Your task to perform on an android device: change the upload size in google photos Image 0: 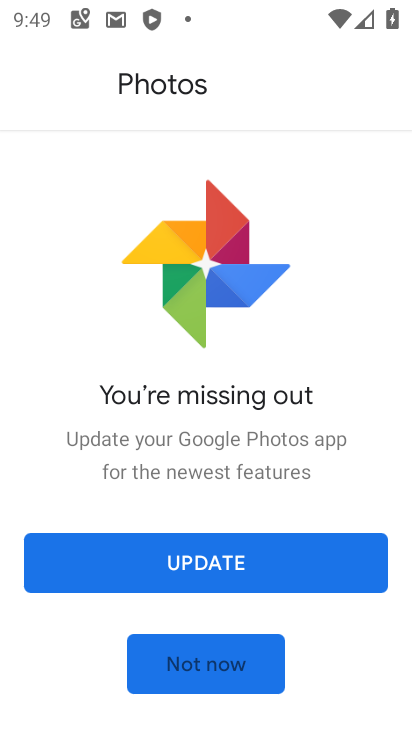
Step 0: click (264, 556)
Your task to perform on an android device: change the upload size in google photos Image 1: 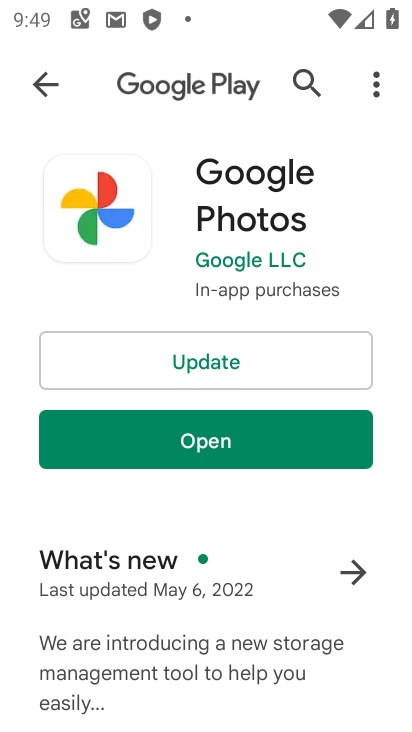
Step 1: click (270, 353)
Your task to perform on an android device: change the upload size in google photos Image 2: 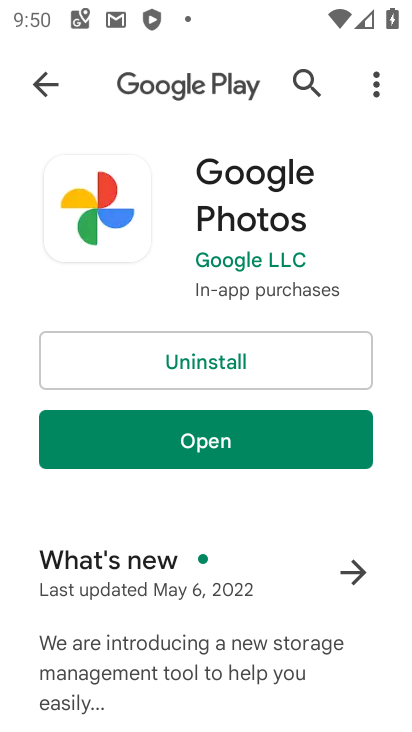
Step 2: click (261, 440)
Your task to perform on an android device: change the upload size in google photos Image 3: 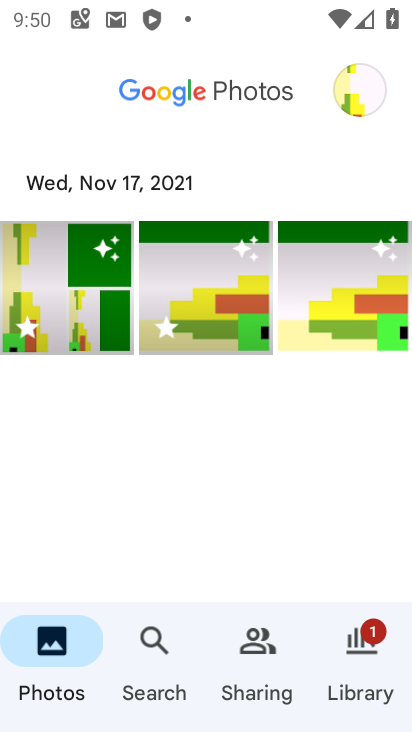
Step 3: click (353, 94)
Your task to perform on an android device: change the upload size in google photos Image 4: 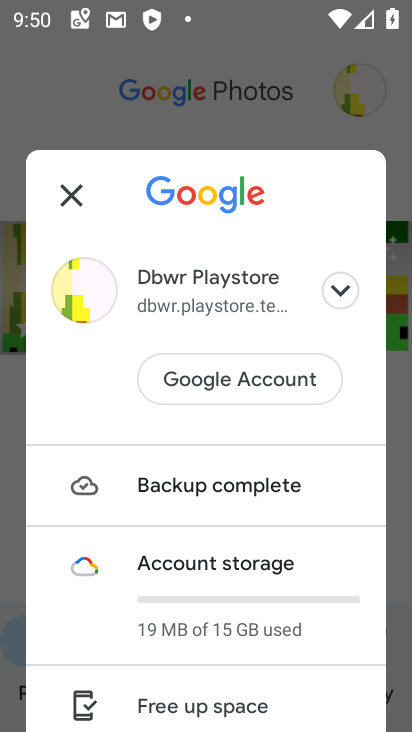
Step 4: click (244, 670)
Your task to perform on an android device: change the upload size in google photos Image 5: 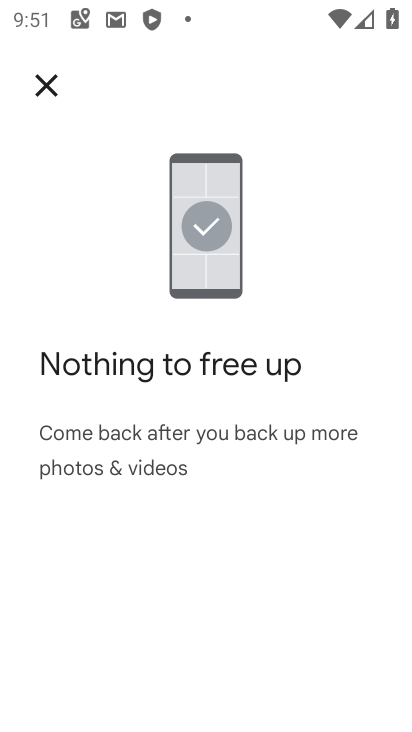
Step 5: click (71, 135)
Your task to perform on an android device: change the upload size in google photos Image 6: 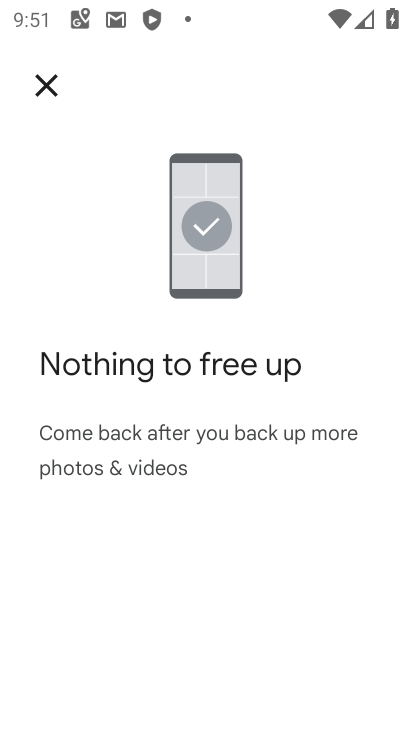
Step 6: click (53, 102)
Your task to perform on an android device: change the upload size in google photos Image 7: 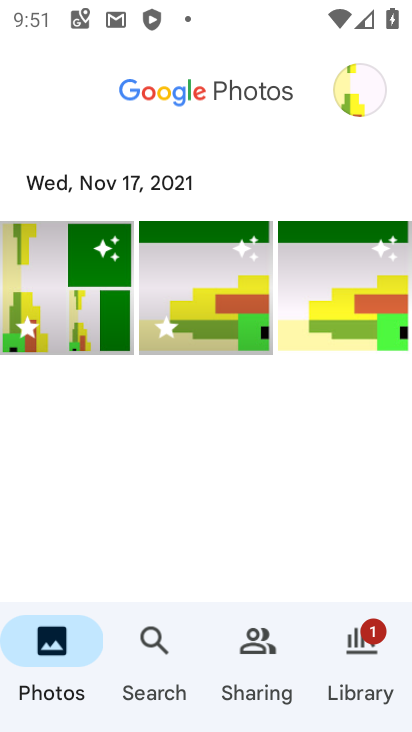
Step 7: click (381, 107)
Your task to perform on an android device: change the upload size in google photos Image 8: 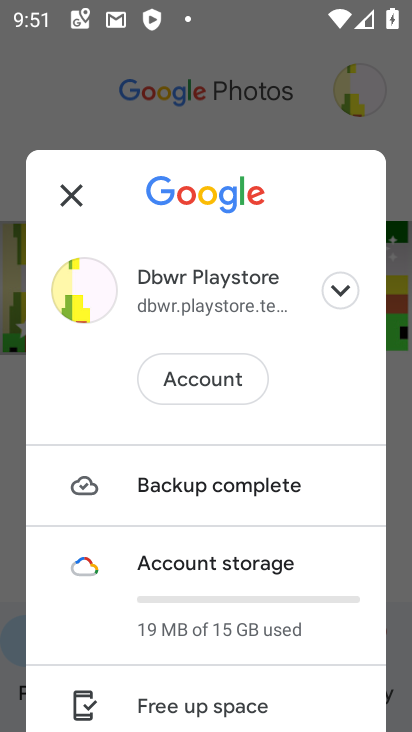
Step 8: drag from (228, 632) to (228, 513)
Your task to perform on an android device: change the upload size in google photos Image 9: 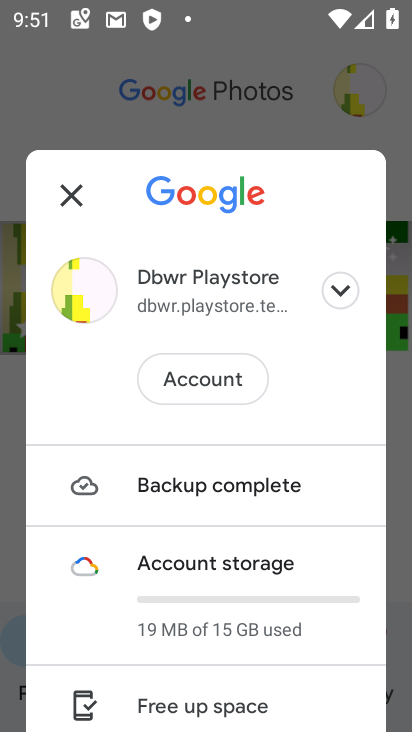
Step 9: drag from (226, 676) to (226, 548)
Your task to perform on an android device: change the upload size in google photos Image 10: 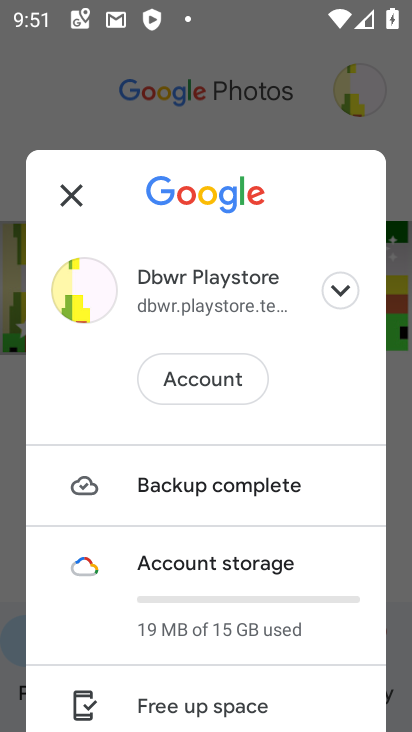
Step 10: drag from (227, 636) to (308, 275)
Your task to perform on an android device: change the upload size in google photos Image 11: 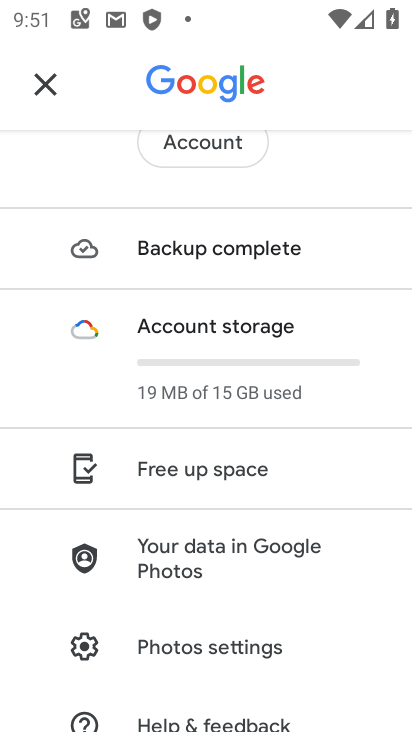
Step 11: click (259, 628)
Your task to perform on an android device: change the upload size in google photos Image 12: 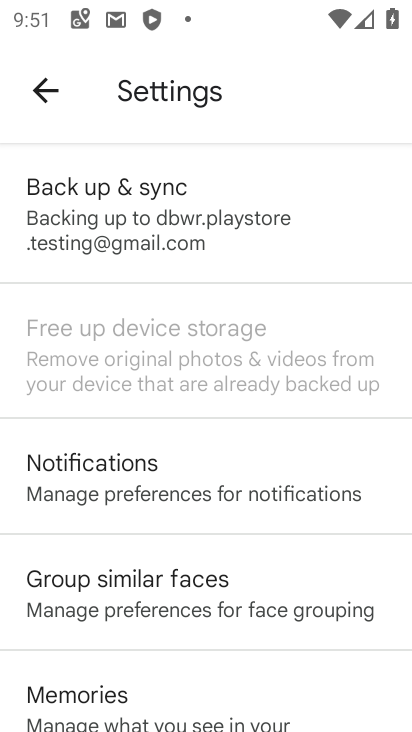
Step 12: click (222, 235)
Your task to perform on an android device: change the upload size in google photos Image 13: 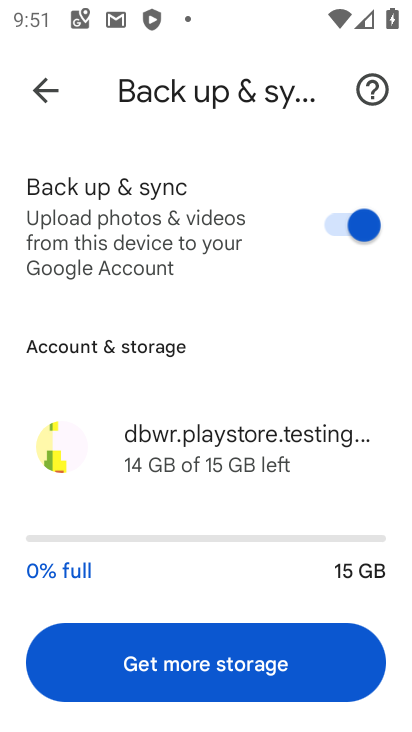
Step 13: click (212, 454)
Your task to perform on an android device: change the upload size in google photos Image 14: 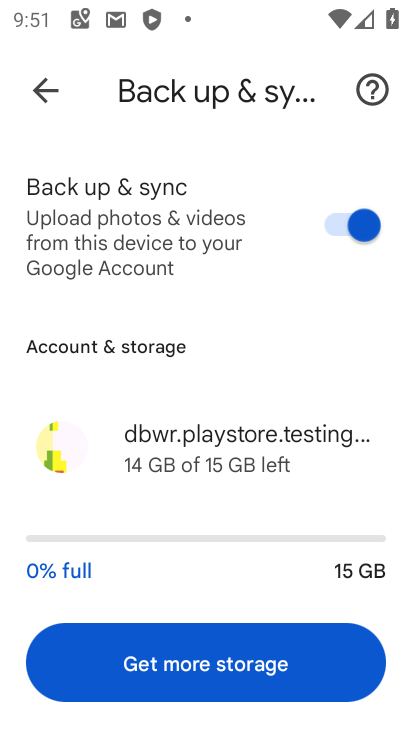
Step 14: drag from (214, 480) to (175, 74)
Your task to perform on an android device: change the upload size in google photos Image 15: 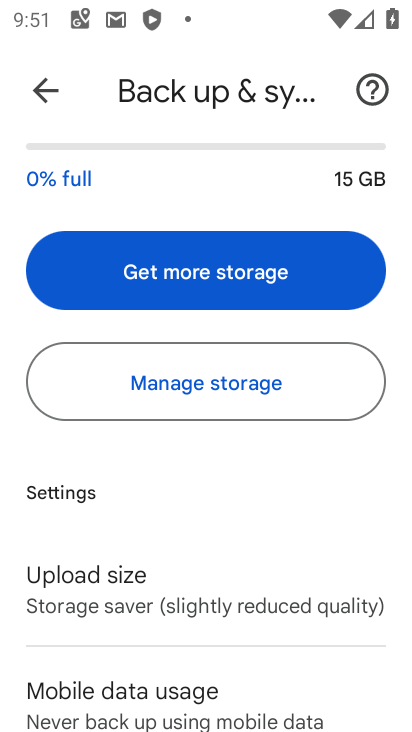
Step 15: click (196, 619)
Your task to perform on an android device: change the upload size in google photos Image 16: 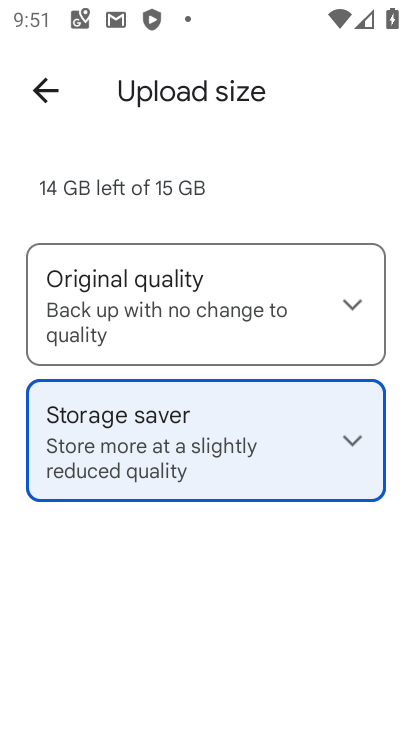
Step 16: click (198, 343)
Your task to perform on an android device: change the upload size in google photos Image 17: 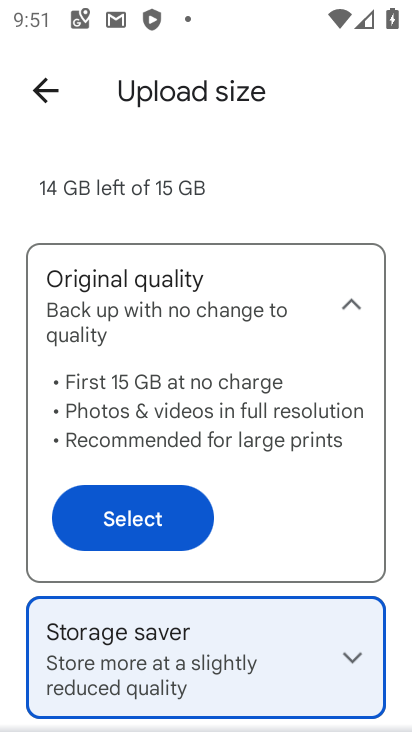
Step 17: task complete